Your task to perform on an android device: turn off javascript in the chrome app Image 0: 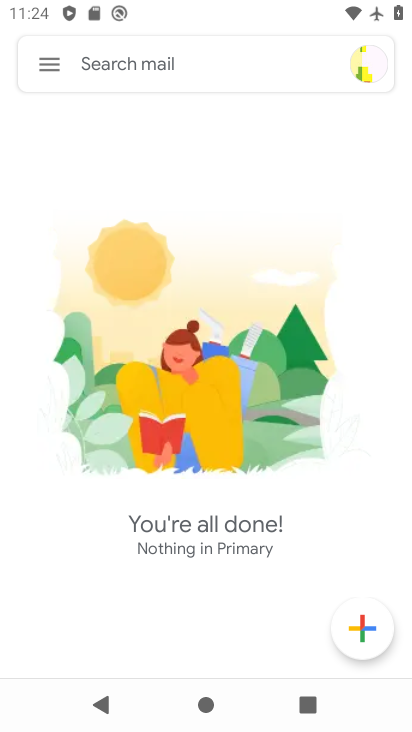
Step 0: press home button
Your task to perform on an android device: turn off javascript in the chrome app Image 1: 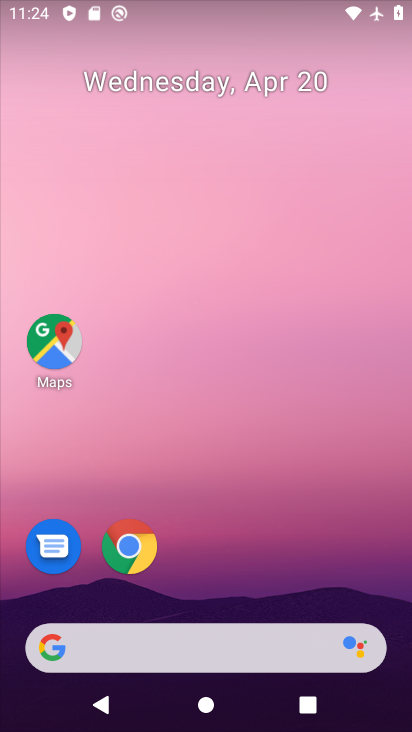
Step 1: drag from (136, 625) to (273, 251)
Your task to perform on an android device: turn off javascript in the chrome app Image 2: 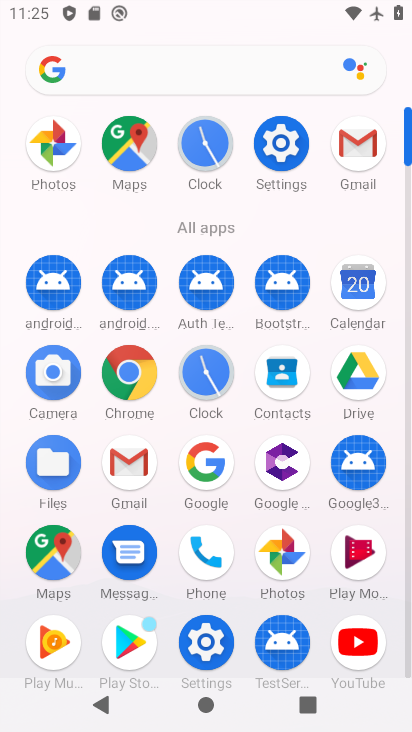
Step 2: click (140, 382)
Your task to perform on an android device: turn off javascript in the chrome app Image 3: 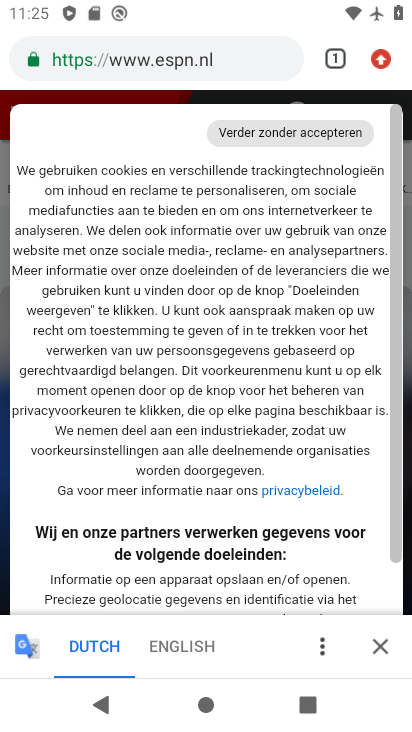
Step 3: click (378, 74)
Your task to perform on an android device: turn off javascript in the chrome app Image 4: 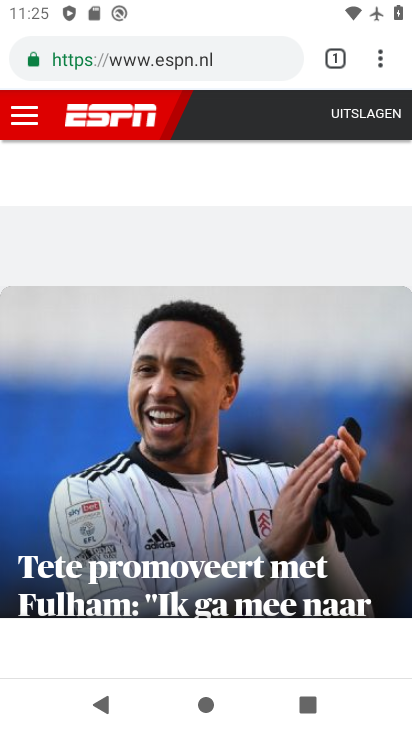
Step 4: click (374, 69)
Your task to perform on an android device: turn off javascript in the chrome app Image 5: 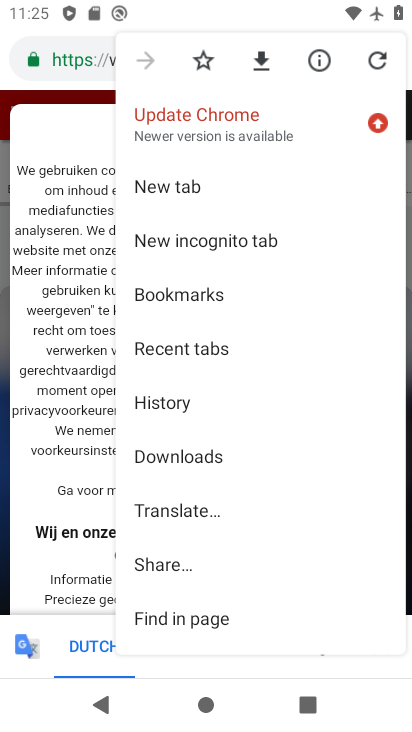
Step 5: drag from (244, 509) to (377, 151)
Your task to perform on an android device: turn off javascript in the chrome app Image 6: 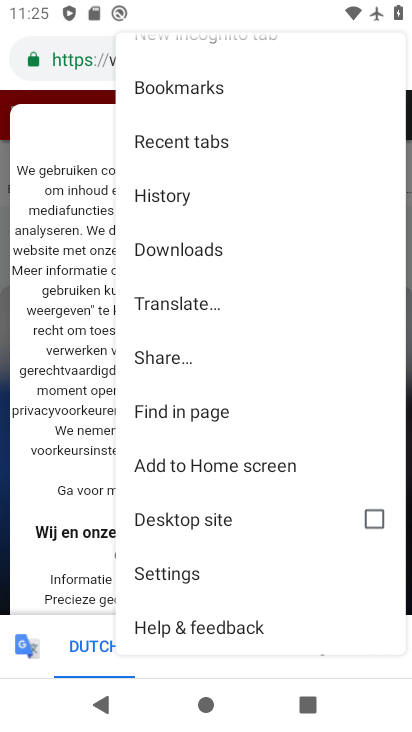
Step 6: click (179, 571)
Your task to perform on an android device: turn off javascript in the chrome app Image 7: 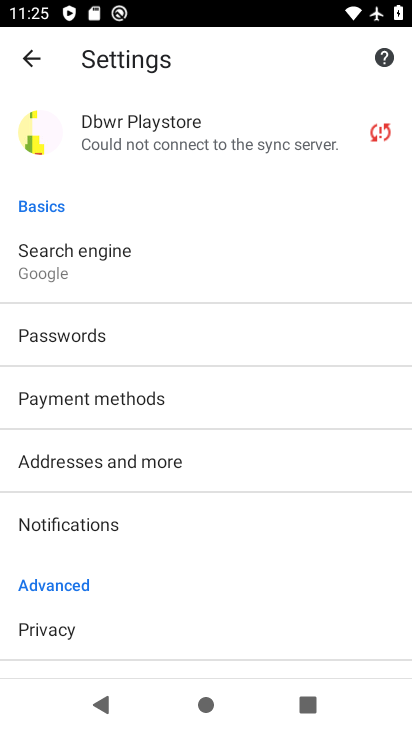
Step 7: drag from (144, 590) to (324, 245)
Your task to perform on an android device: turn off javascript in the chrome app Image 8: 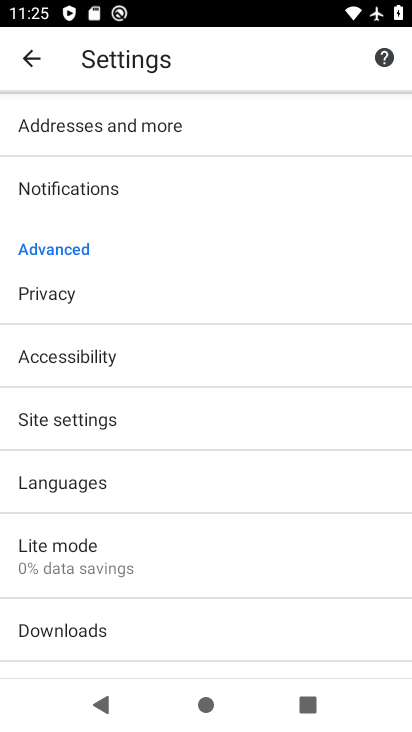
Step 8: click (62, 414)
Your task to perform on an android device: turn off javascript in the chrome app Image 9: 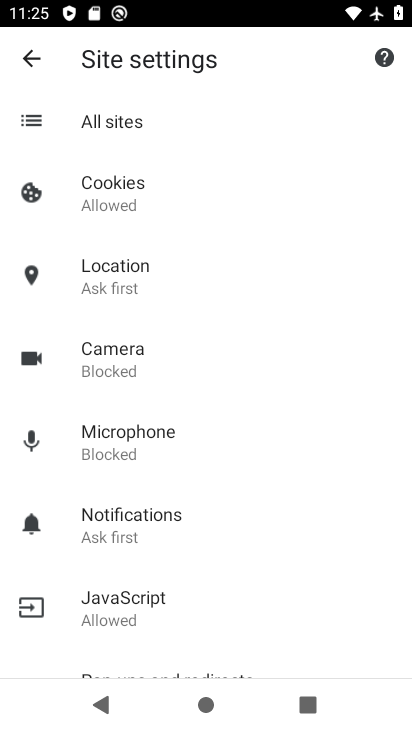
Step 9: click (132, 605)
Your task to perform on an android device: turn off javascript in the chrome app Image 10: 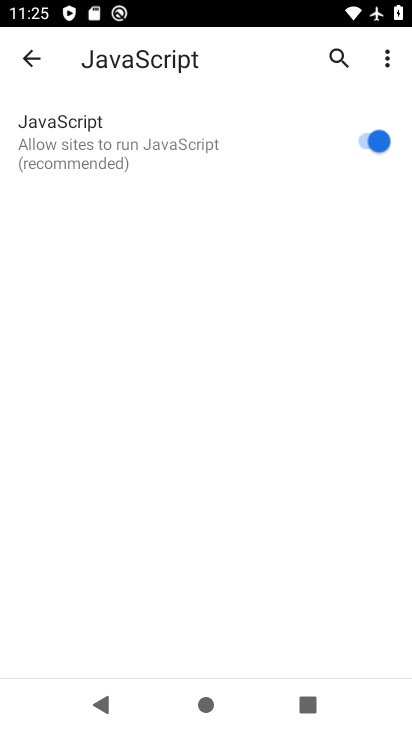
Step 10: click (366, 144)
Your task to perform on an android device: turn off javascript in the chrome app Image 11: 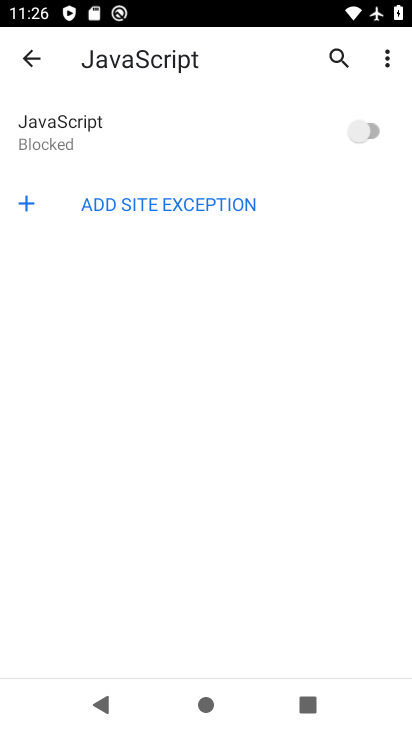
Step 11: task complete